Your task to perform on an android device: Search for hotels in Sydney Image 0: 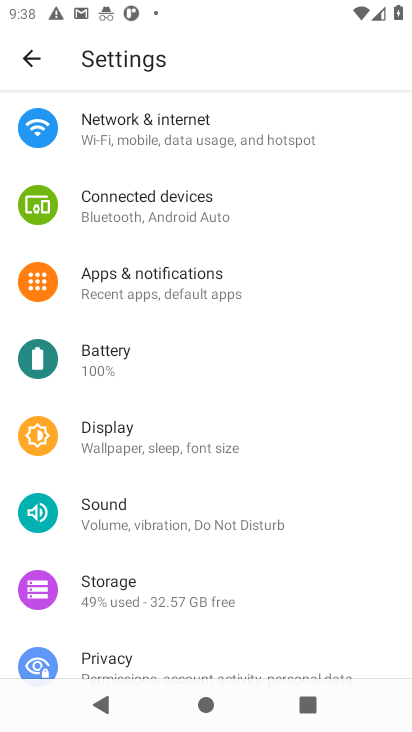
Step 0: press home button
Your task to perform on an android device: Search for hotels in Sydney Image 1: 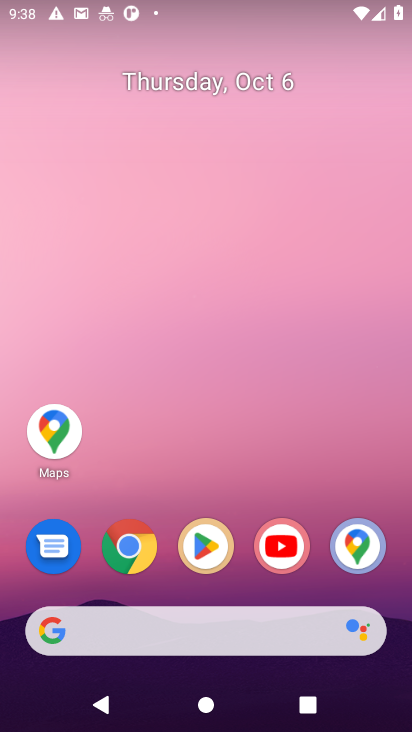
Step 1: click (126, 542)
Your task to perform on an android device: Search for hotels in Sydney Image 2: 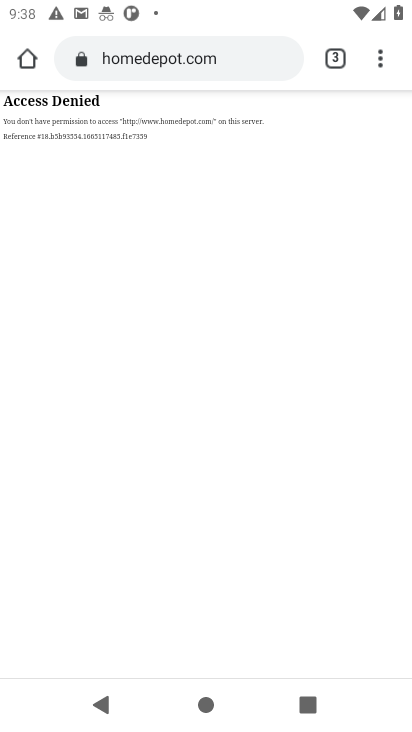
Step 2: click (214, 50)
Your task to perform on an android device: Search for hotels in Sydney Image 3: 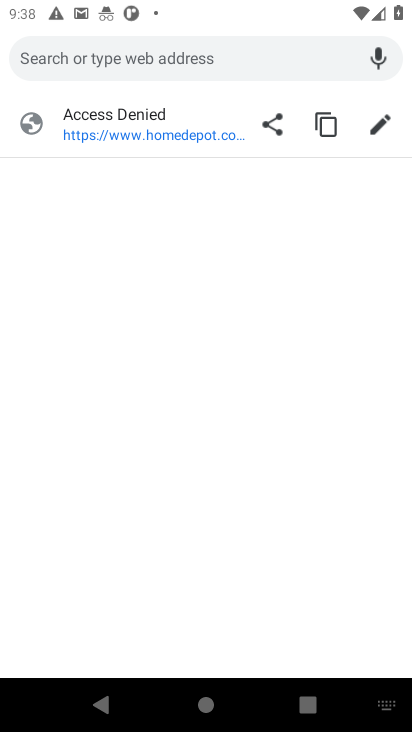
Step 3: type "hotels in sydney"
Your task to perform on an android device: Search for hotels in Sydney Image 4: 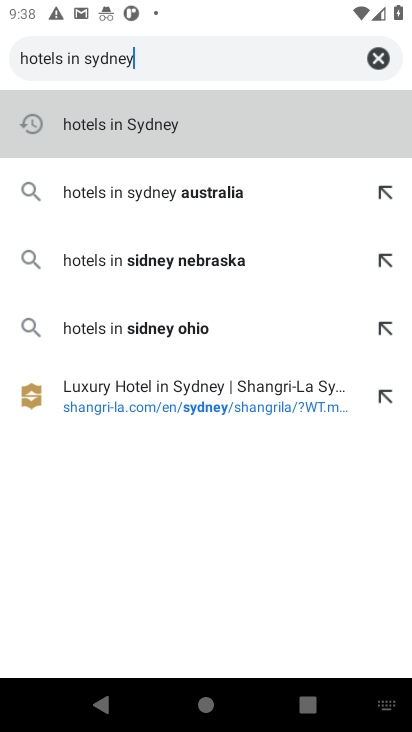
Step 4: click (109, 122)
Your task to perform on an android device: Search for hotels in Sydney Image 5: 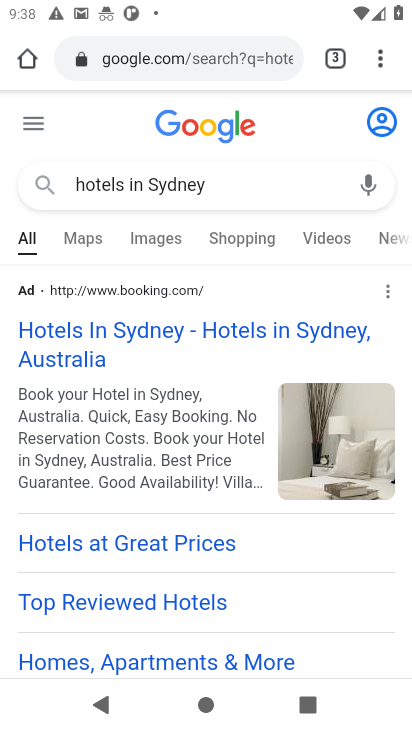
Step 5: click (83, 335)
Your task to perform on an android device: Search for hotels in Sydney Image 6: 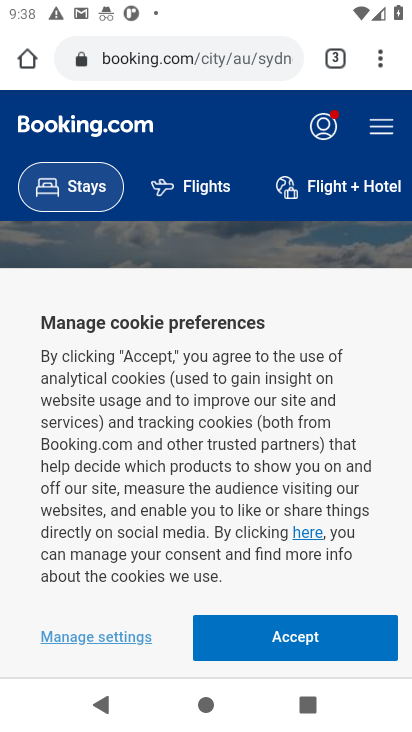
Step 6: click (297, 643)
Your task to perform on an android device: Search for hotels in Sydney Image 7: 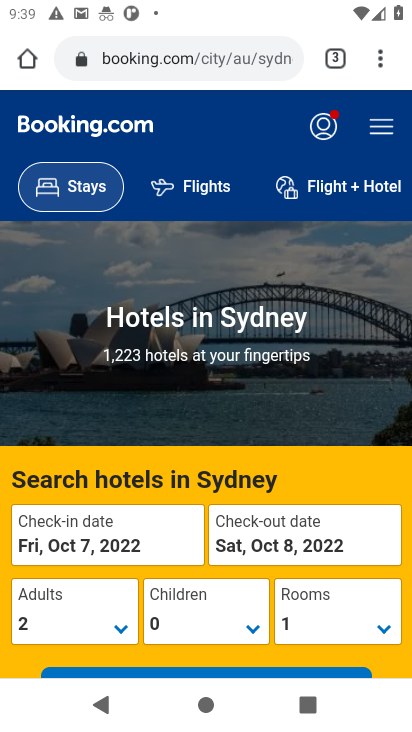
Step 7: task complete